Your task to perform on an android device: Open the calendar app, open the side menu, and click the "Day" option Image 0: 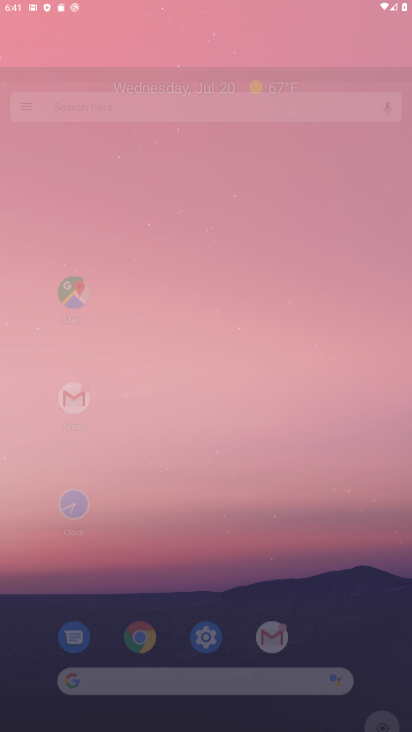
Step 0: click (208, 666)
Your task to perform on an android device: Open the calendar app, open the side menu, and click the "Day" option Image 1: 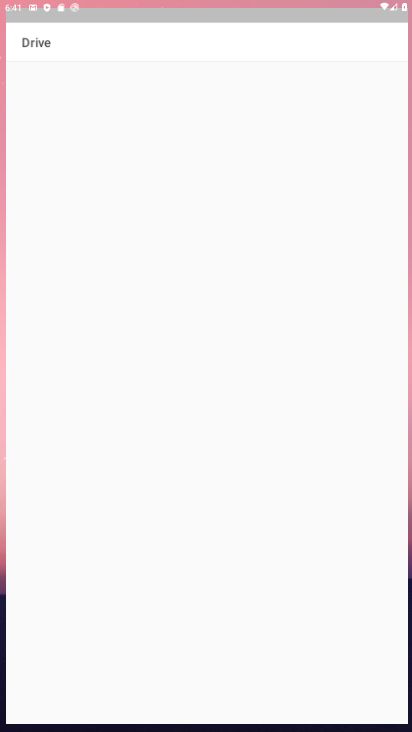
Step 1: press home button
Your task to perform on an android device: Open the calendar app, open the side menu, and click the "Day" option Image 2: 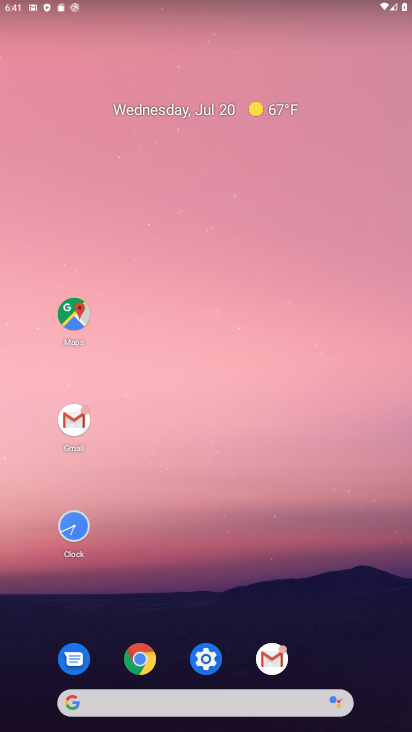
Step 2: drag from (260, 568) to (188, 30)
Your task to perform on an android device: Open the calendar app, open the side menu, and click the "Day" option Image 3: 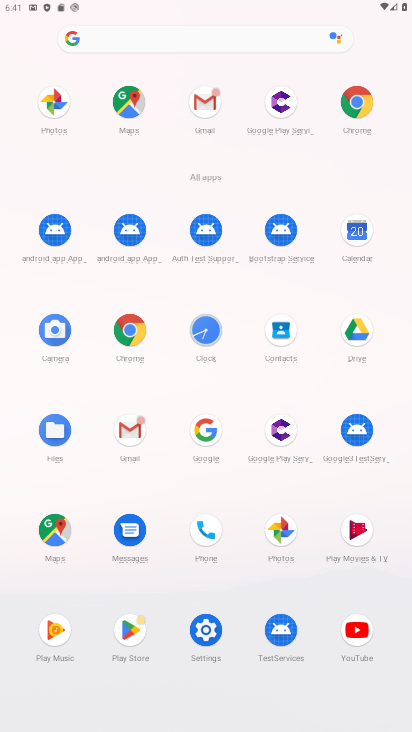
Step 3: click (356, 235)
Your task to perform on an android device: Open the calendar app, open the side menu, and click the "Day" option Image 4: 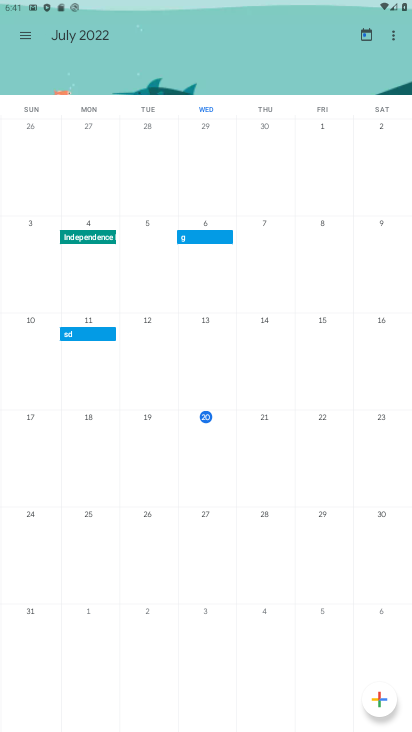
Step 4: click (23, 37)
Your task to perform on an android device: Open the calendar app, open the side menu, and click the "Day" option Image 5: 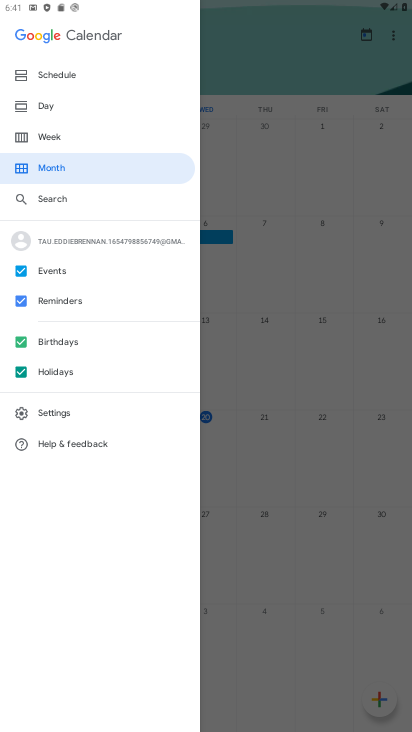
Step 5: click (51, 104)
Your task to perform on an android device: Open the calendar app, open the side menu, and click the "Day" option Image 6: 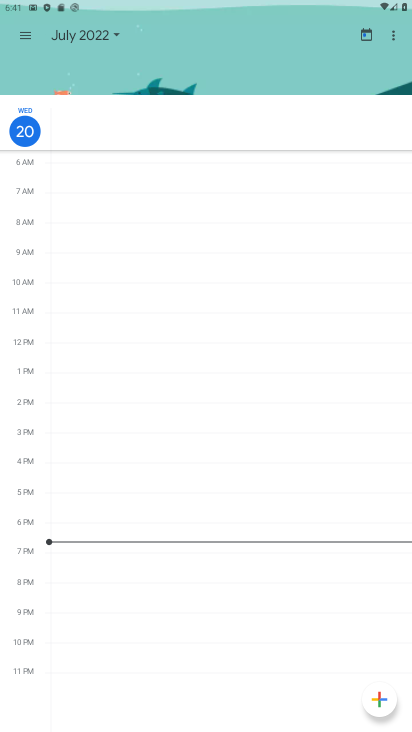
Step 6: task complete